Your task to perform on an android device: Go to privacy settings Image 0: 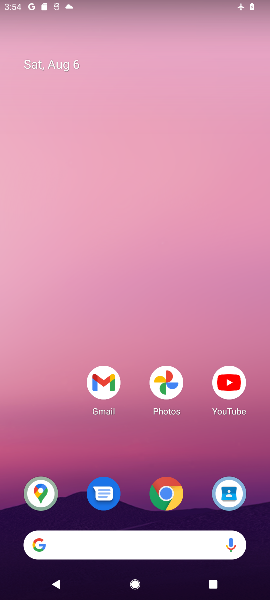
Step 0: drag from (168, 564) to (83, 18)
Your task to perform on an android device: Go to privacy settings Image 1: 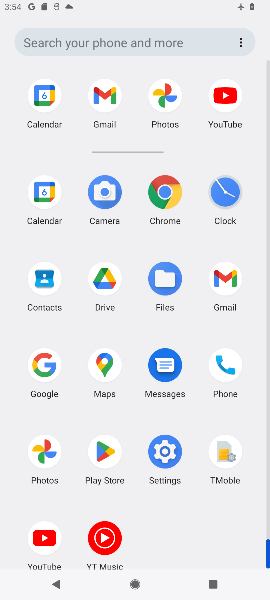
Step 1: click (154, 458)
Your task to perform on an android device: Go to privacy settings Image 2: 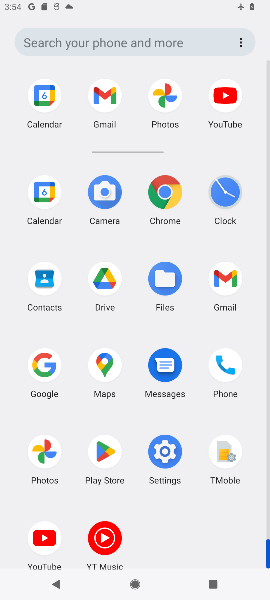
Step 2: click (166, 450)
Your task to perform on an android device: Go to privacy settings Image 3: 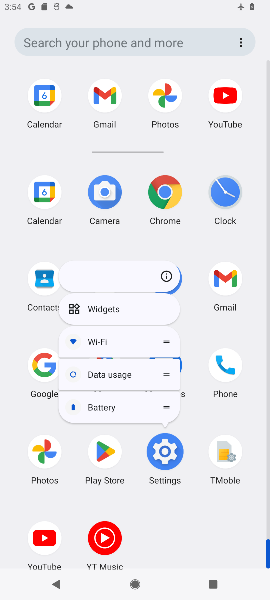
Step 3: click (163, 451)
Your task to perform on an android device: Go to privacy settings Image 4: 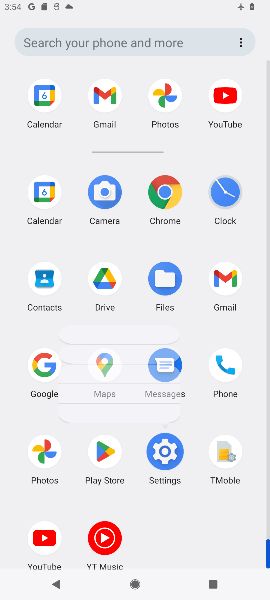
Step 4: click (163, 451)
Your task to perform on an android device: Go to privacy settings Image 5: 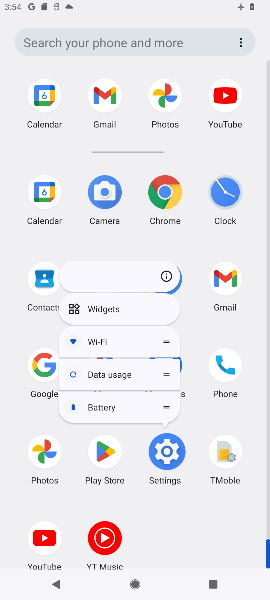
Step 5: click (166, 451)
Your task to perform on an android device: Go to privacy settings Image 6: 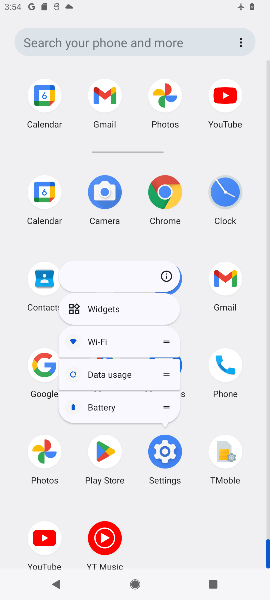
Step 6: click (166, 455)
Your task to perform on an android device: Go to privacy settings Image 7: 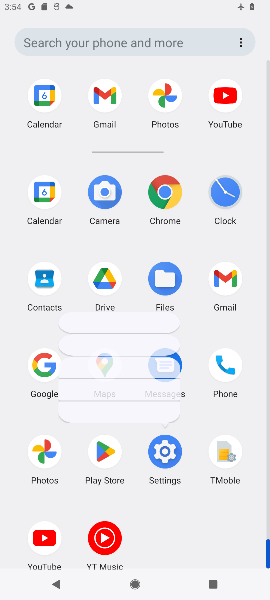
Step 7: click (167, 472)
Your task to perform on an android device: Go to privacy settings Image 8: 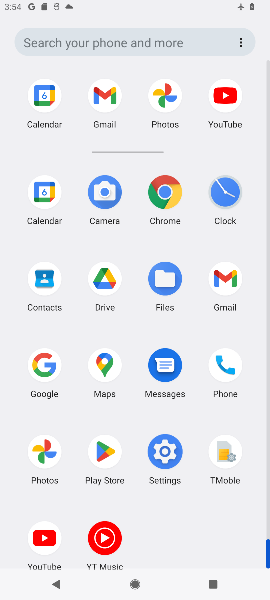
Step 8: click (167, 472)
Your task to perform on an android device: Go to privacy settings Image 9: 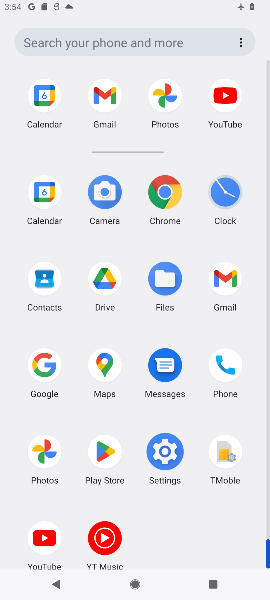
Step 9: click (161, 454)
Your task to perform on an android device: Go to privacy settings Image 10: 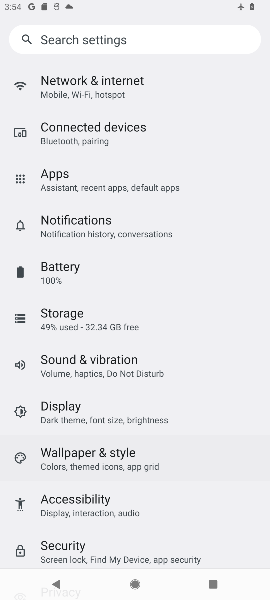
Step 10: click (161, 453)
Your task to perform on an android device: Go to privacy settings Image 11: 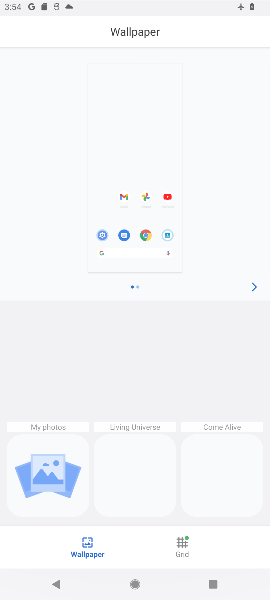
Step 11: press back button
Your task to perform on an android device: Go to privacy settings Image 12: 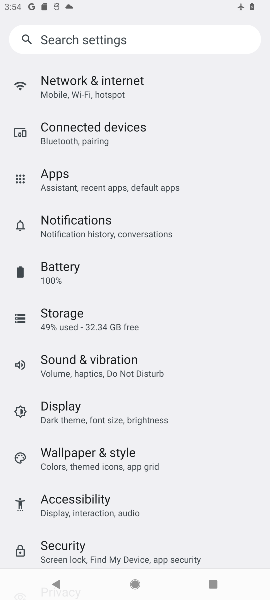
Step 12: drag from (79, 432) to (93, 85)
Your task to perform on an android device: Go to privacy settings Image 13: 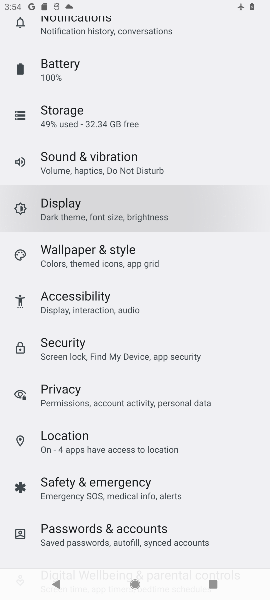
Step 13: drag from (97, 323) to (100, 160)
Your task to perform on an android device: Go to privacy settings Image 14: 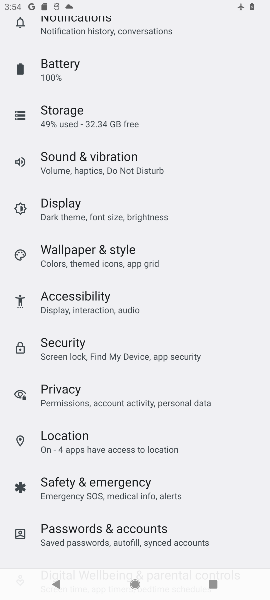
Step 14: click (60, 387)
Your task to perform on an android device: Go to privacy settings Image 15: 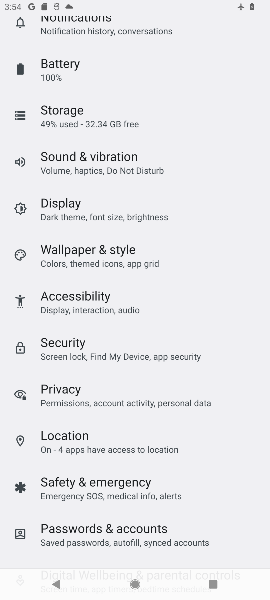
Step 15: click (60, 396)
Your task to perform on an android device: Go to privacy settings Image 16: 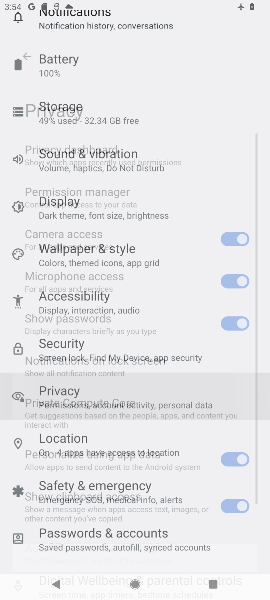
Step 16: click (60, 396)
Your task to perform on an android device: Go to privacy settings Image 17: 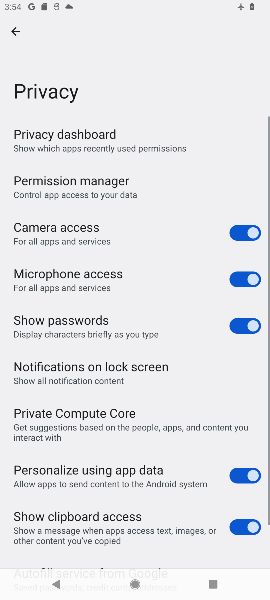
Step 17: click (60, 396)
Your task to perform on an android device: Go to privacy settings Image 18: 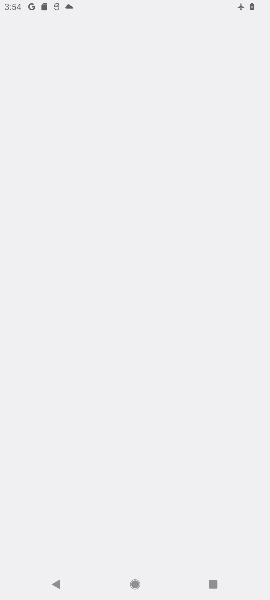
Step 18: task complete